Your task to perform on an android device: show emergency info Image 0: 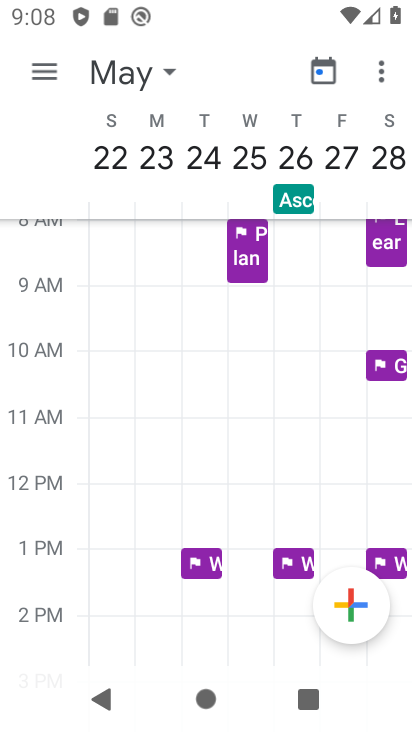
Step 0: press home button
Your task to perform on an android device: show emergency info Image 1: 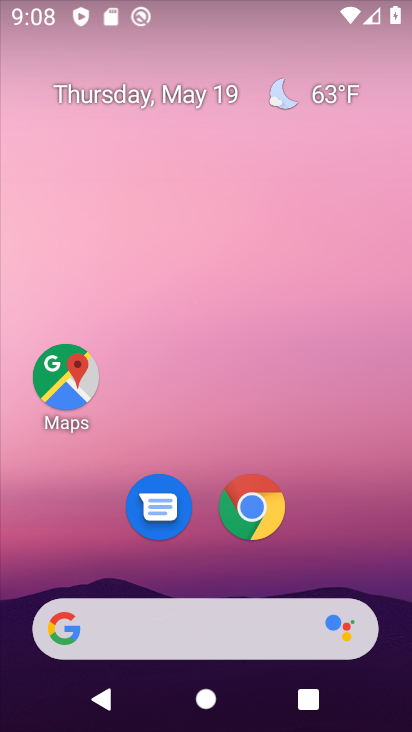
Step 1: drag from (334, 572) to (103, 4)
Your task to perform on an android device: show emergency info Image 2: 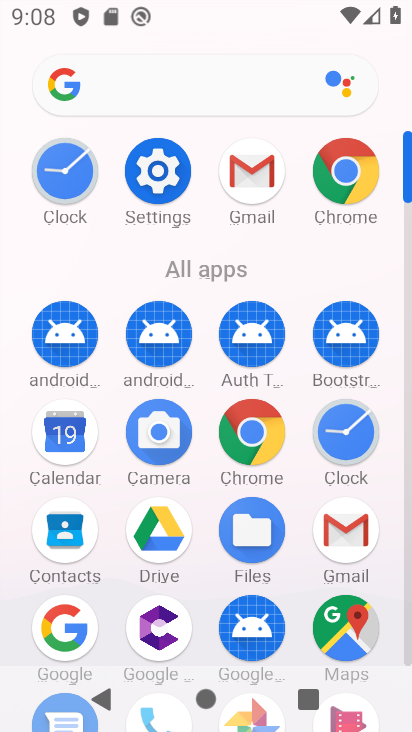
Step 2: click (174, 192)
Your task to perform on an android device: show emergency info Image 3: 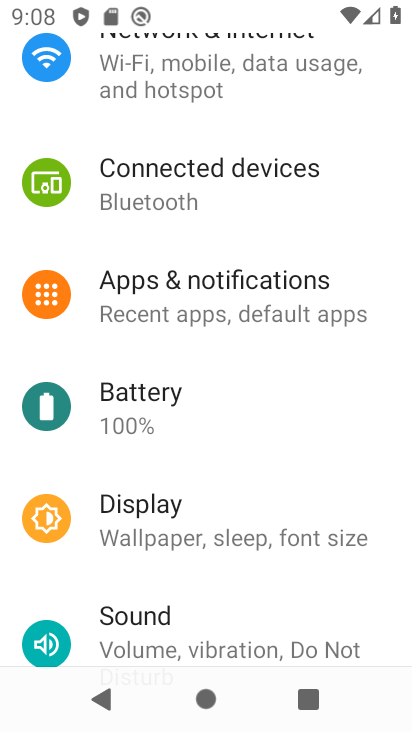
Step 3: drag from (279, 620) to (233, 11)
Your task to perform on an android device: show emergency info Image 4: 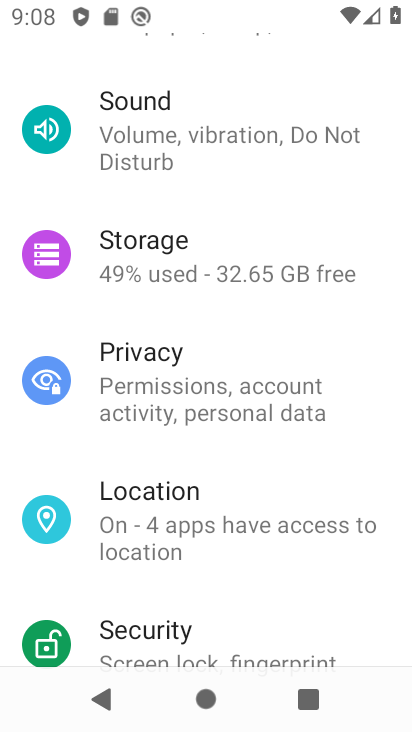
Step 4: drag from (210, 584) to (155, 40)
Your task to perform on an android device: show emergency info Image 5: 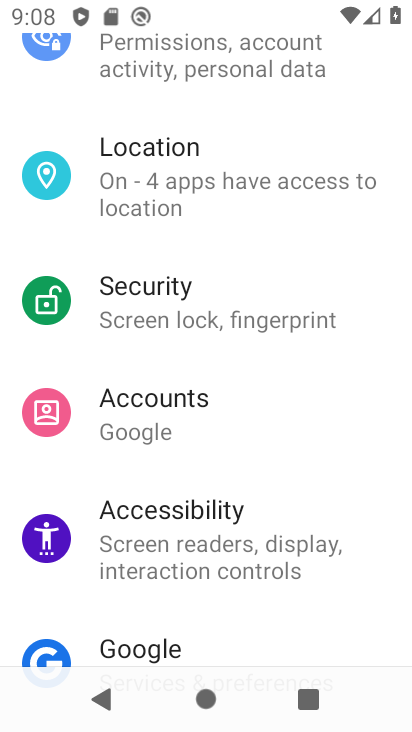
Step 5: drag from (261, 601) to (238, 220)
Your task to perform on an android device: show emergency info Image 6: 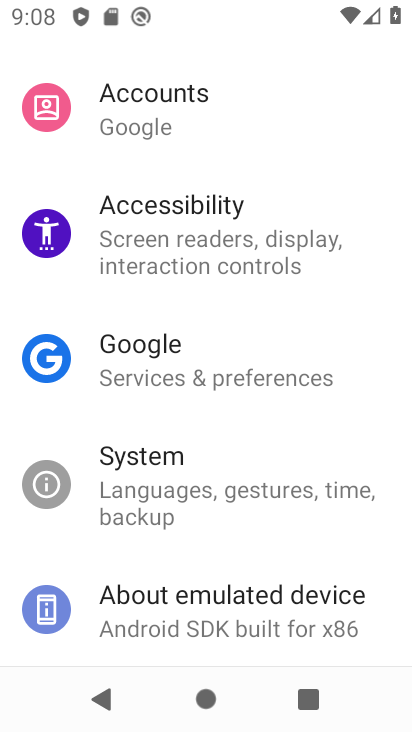
Step 6: click (264, 589)
Your task to perform on an android device: show emergency info Image 7: 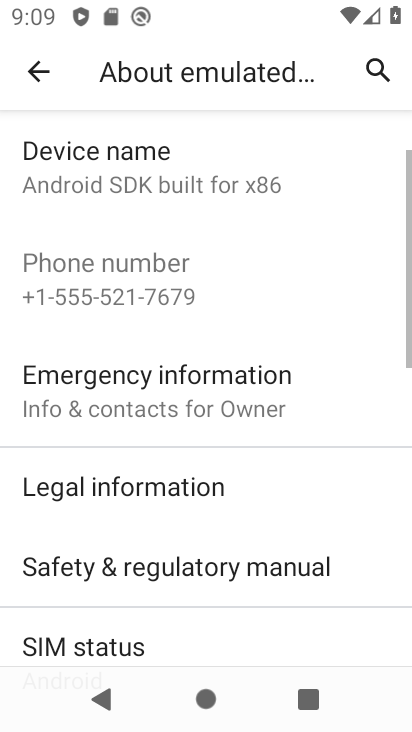
Step 7: click (254, 376)
Your task to perform on an android device: show emergency info Image 8: 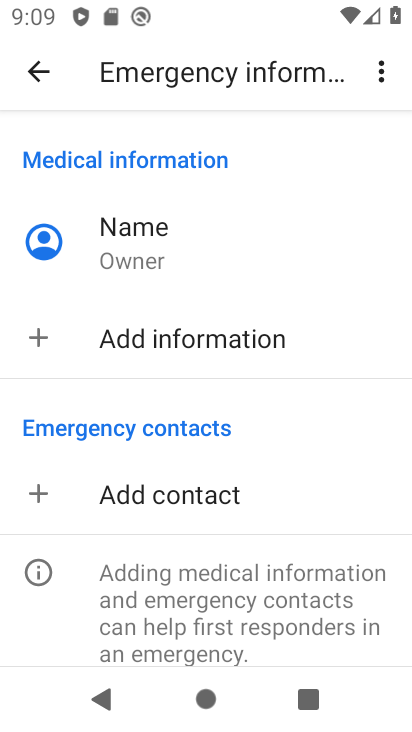
Step 8: task complete